Your task to perform on an android device: uninstall "Expedia: Hotels, Flights & Car" Image 0: 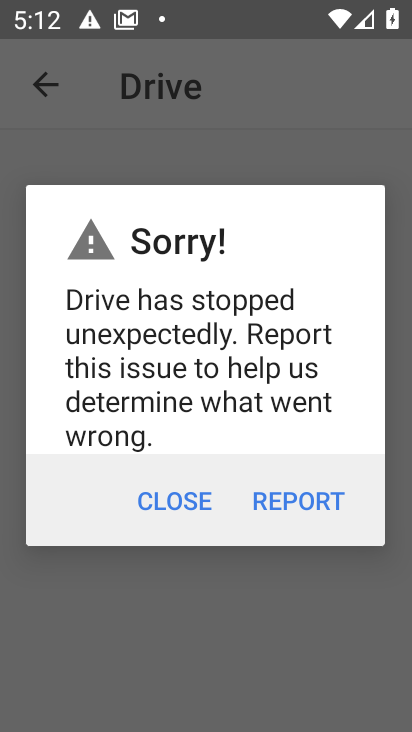
Step 0: press home button
Your task to perform on an android device: uninstall "Expedia: Hotels, Flights & Car" Image 1: 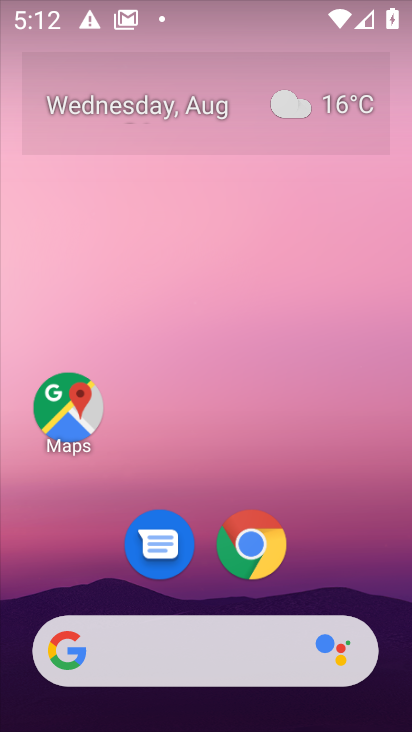
Step 1: drag from (188, 655) to (250, 64)
Your task to perform on an android device: uninstall "Expedia: Hotels, Flights & Car" Image 2: 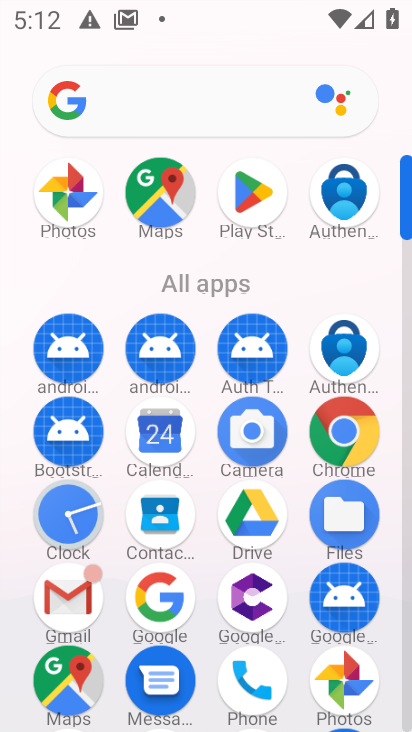
Step 2: click (257, 195)
Your task to perform on an android device: uninstall "Expedia: Hotels, Flights & Car" Image 3: 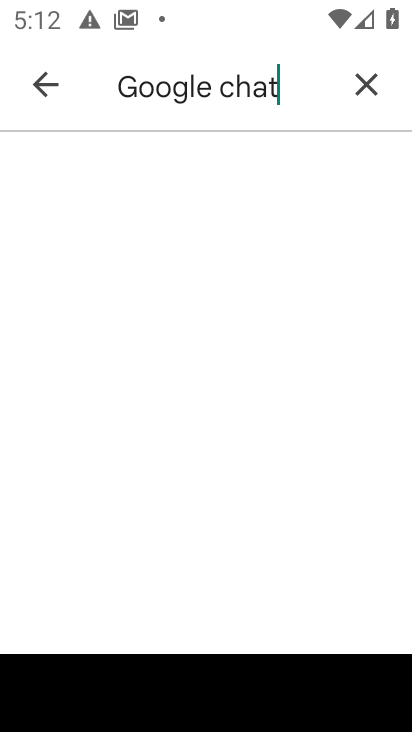
Step 3: press back button
Your task to perform on an android device: uninstall "Expedia: Hotels, Flights & Car" Image 4: 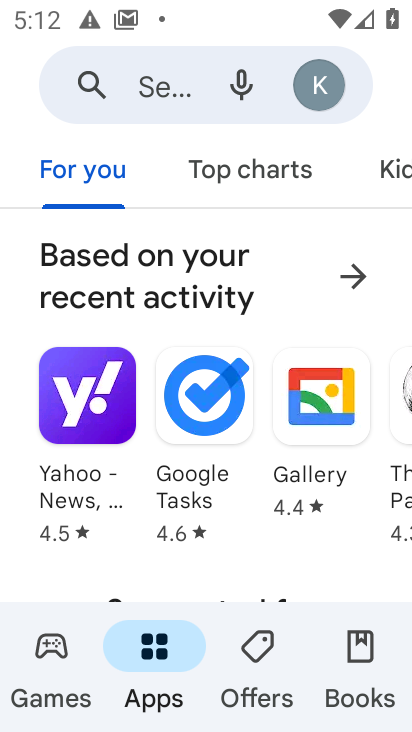
Step 4: click (196, 80)
Your task to perform on an android device: uninstall "Expedia: Hotels, Flights & Car" Image 5: 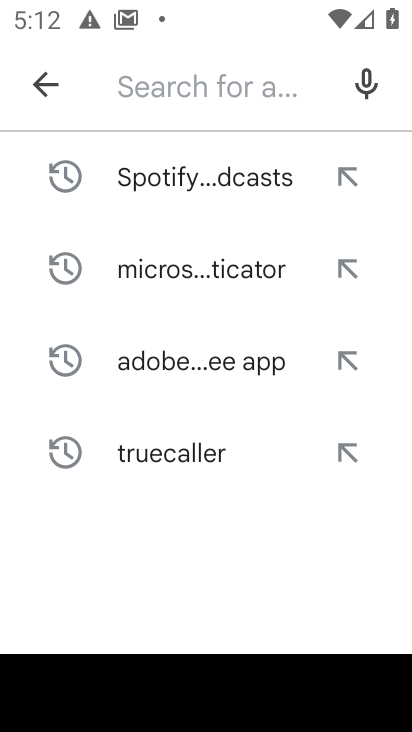
Step 5: type "Expedia: Hotels, Flights & Car"
Your task to perform on an android device: uninstall "Expedia: Hotels, Flights & Car" Image 6: 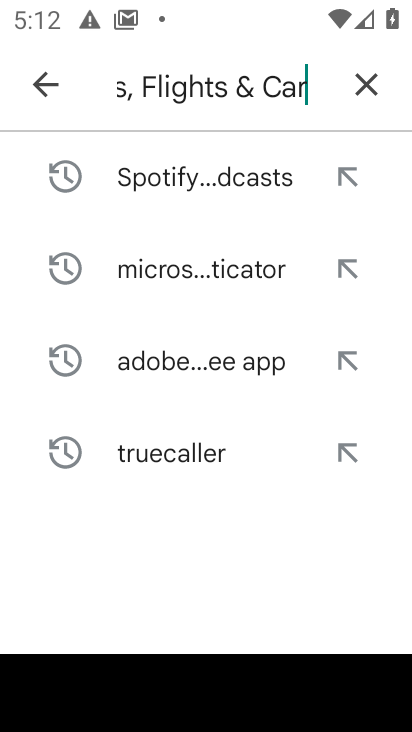
Step 6: type ""
Your task to perform on an android device: uninstall "Expedia: Hotels, Flights & Car" Image 7: 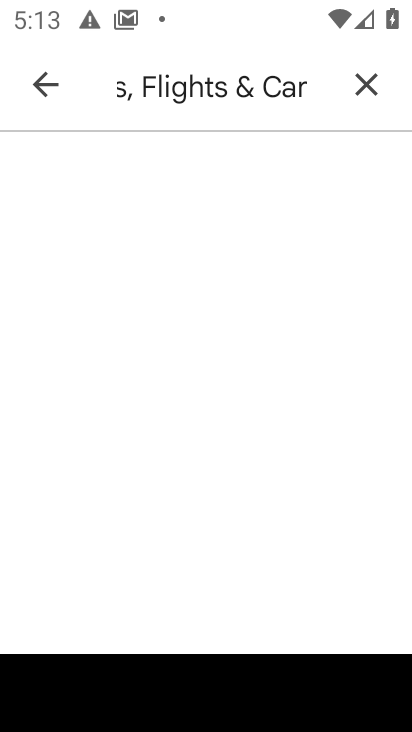
Step 7: task complete